Your task to perform on an android device: What's the weather? Image 0: 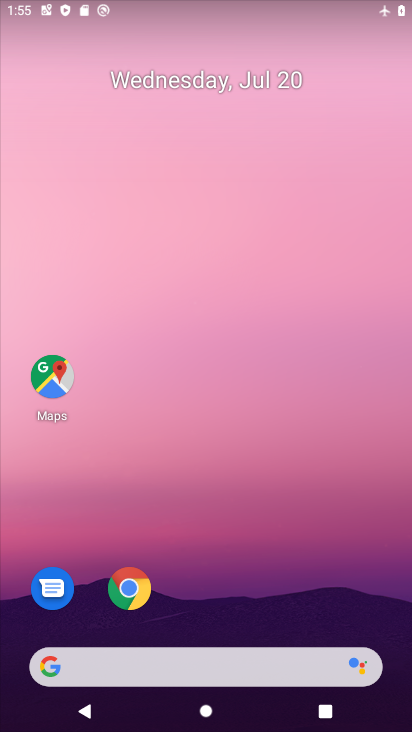
Step 0: drag from (331, 636) to (270, 60)
Your task to perform on an android device: What's the weather? Image 1: 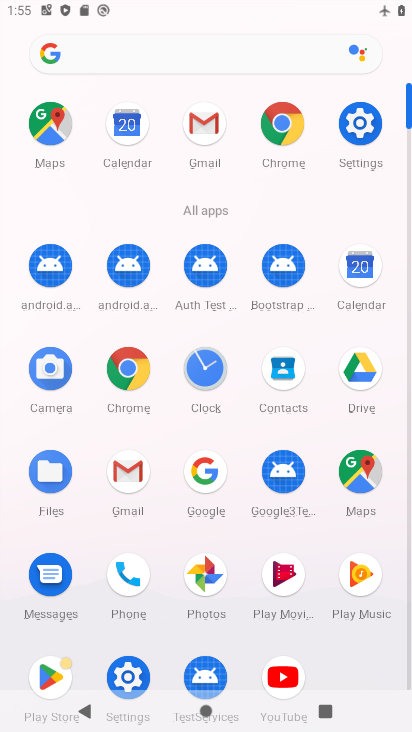
Step 1: click (213, 476)
Your task to perform on an android device: What's the weather? Image 2: 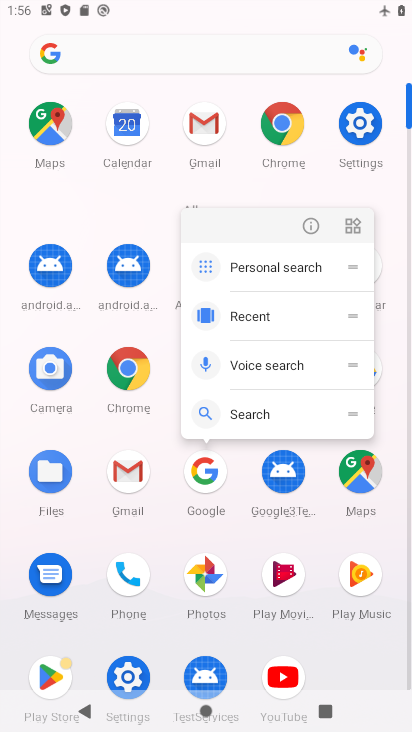
Step 2: click (213, 476)
Your task to perform on an android device: What's the weather? Image 3: 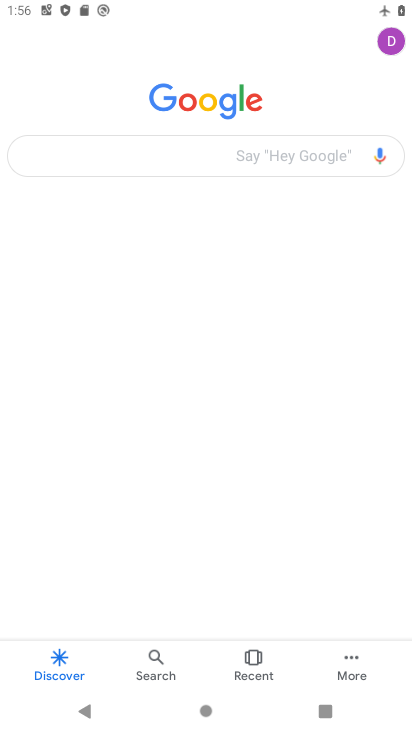
Step 3: click (179, 156)
Your task to perform on an android device: What's the weather? Image 4: 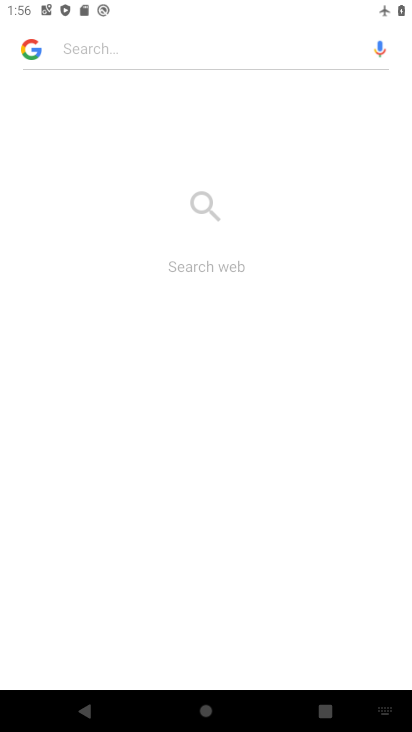
Step 4: type "weather"
Your task to perform on an android device: What's the weather? Image 5: 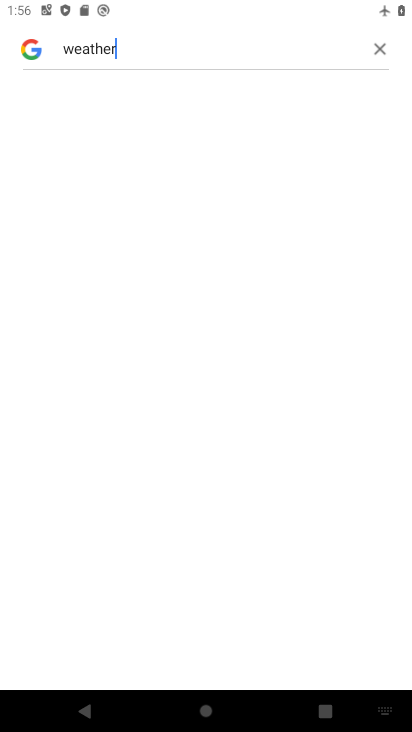
Step 5: press enter
Your task to perform on an android device: What's the weather? Image 6: 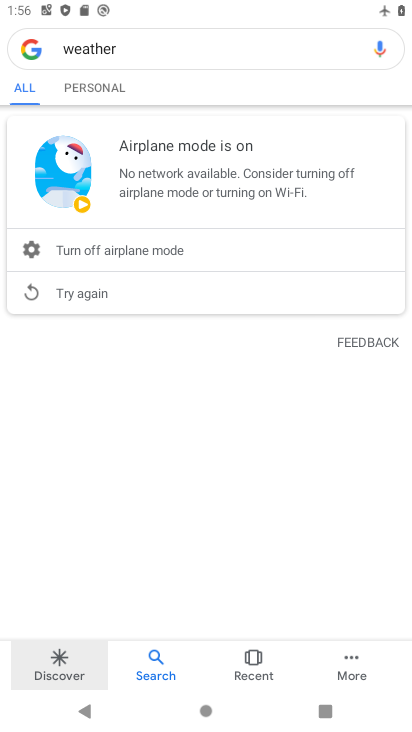
Step 6: task complete